Your task to perform on an android device: open app "VLC for Android" Image 0: 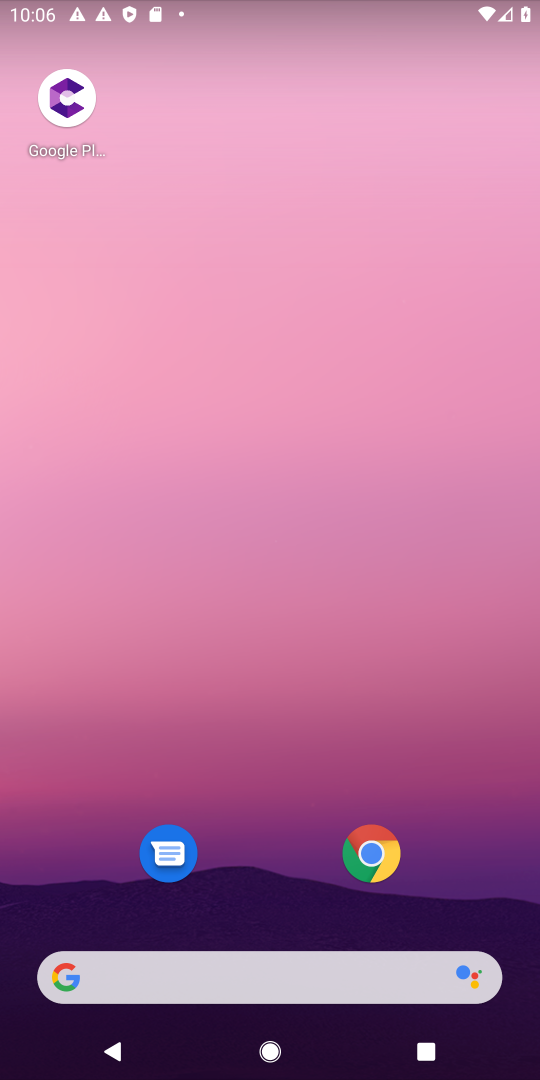
Step 0: drag from (330, 1073) to (308, 283)
Your task to perform on an android device: open app "VLC for Android" Image 1: 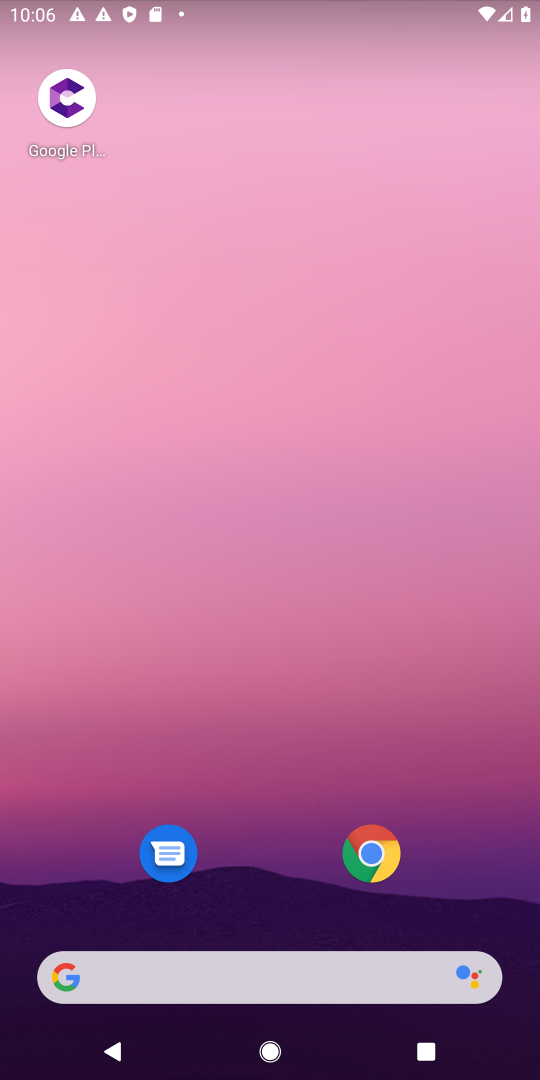
Step 1: task complete